Your task to perform on an android device: Go to Wikipedia Image 0: 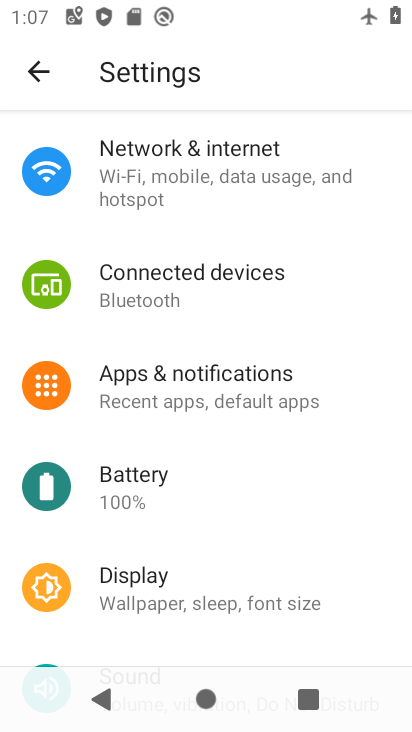
Step 0: press home button
Your task to perform on an android device: Go to Wikipedia Image 1: 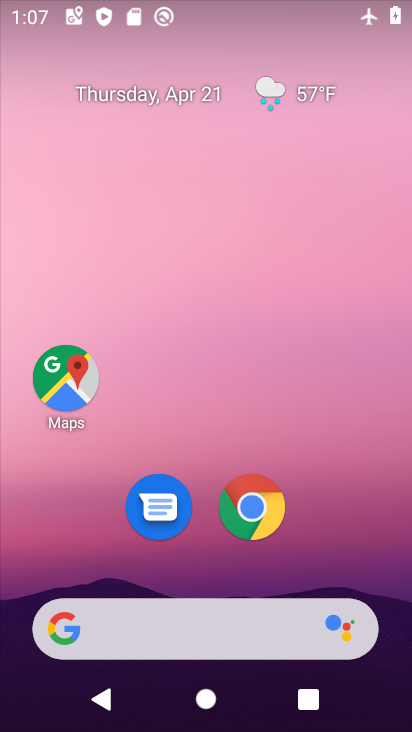
Step 1: click (255, 503)
Your task to perform on an android device: Go to Wikipedia Image 2: 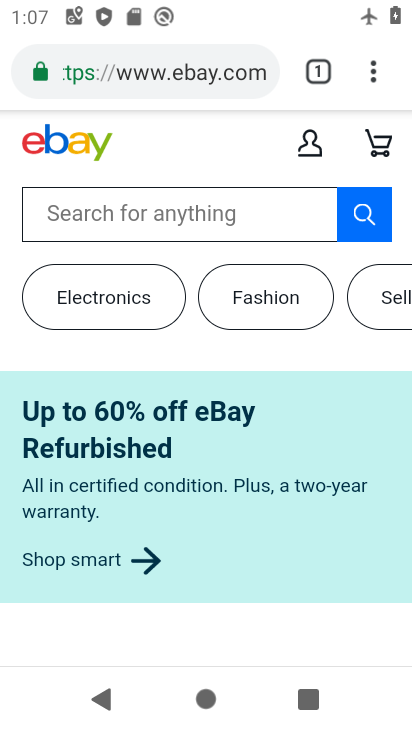
Step 2: click (220, 76)
Your task to perform on an android device: Go to Wikipedia Image 3: 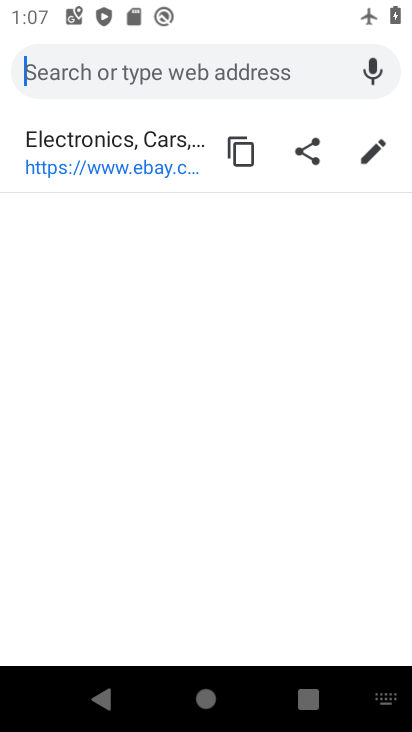
Step 3: type "Wikipedia"
Your task to perform on an android device: Go to Wikipedia Image 4: 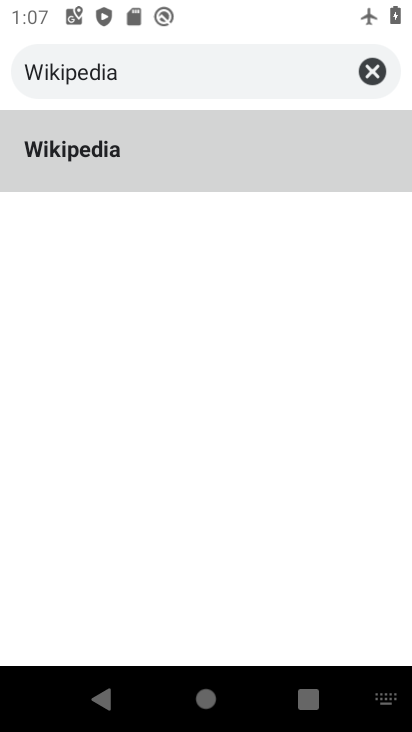
Step 4: click (115, 151)
Your task to perform on an android device: Go to Wikipedia Image 5: 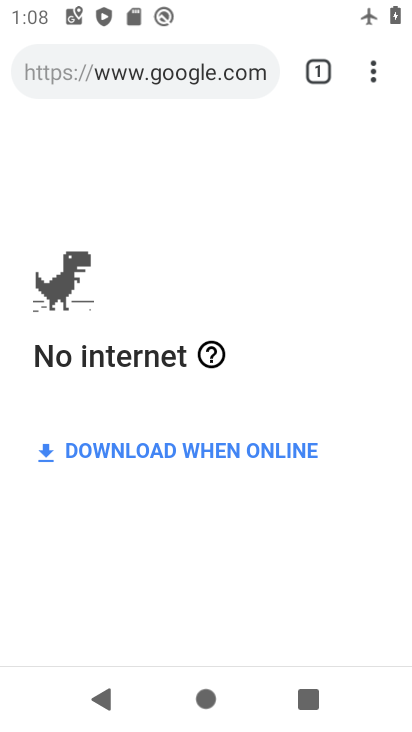
Step 5: task complete